Your task to perform on an android device: Show me the alarms in the clock app Image 0: 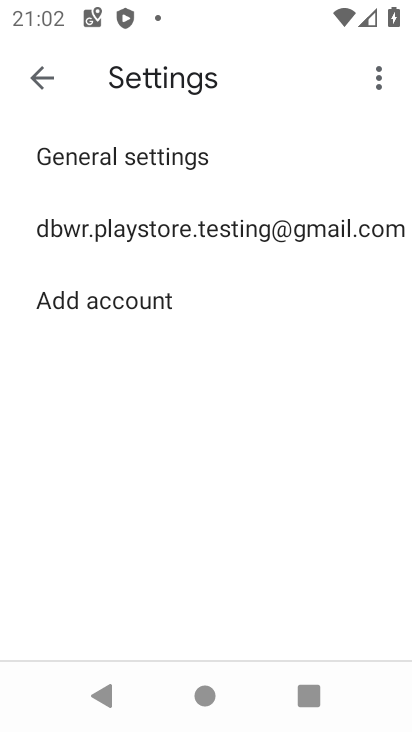
Step 0: press home button
Your task to perform on an android device: Show me the alarms in the clock app Image 1: 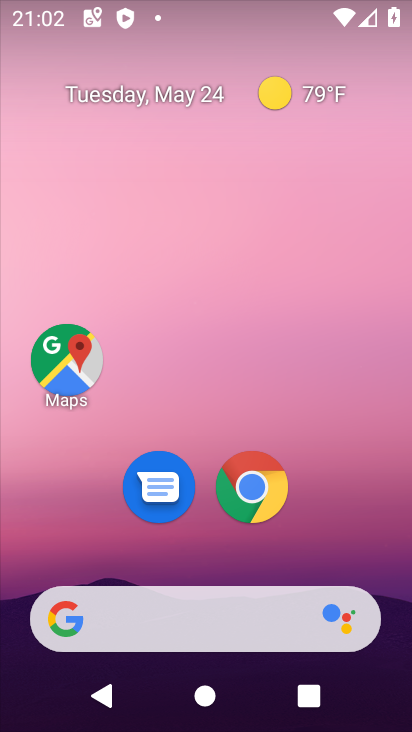
Step 1: drag from (358, 542) to (355, 0)
Your task to perform on an android device: Show me the alarms in the clock app Image 2: 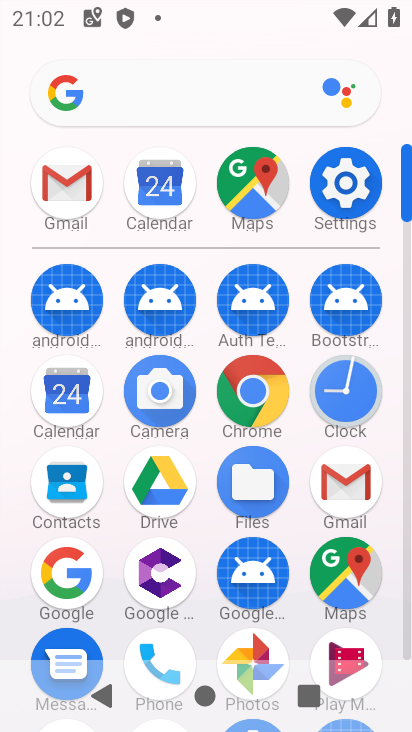
Step 2: click (348, 364)
Your task to perform on an android device: Show me the alarms in the clock app Image 3: 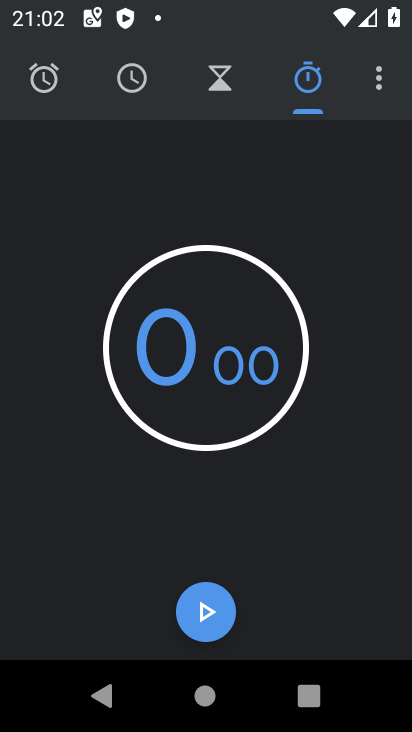
Step 3: click (27, 82)
Your task to perform on an android device: Show me the alarms in the clock app Image 4: 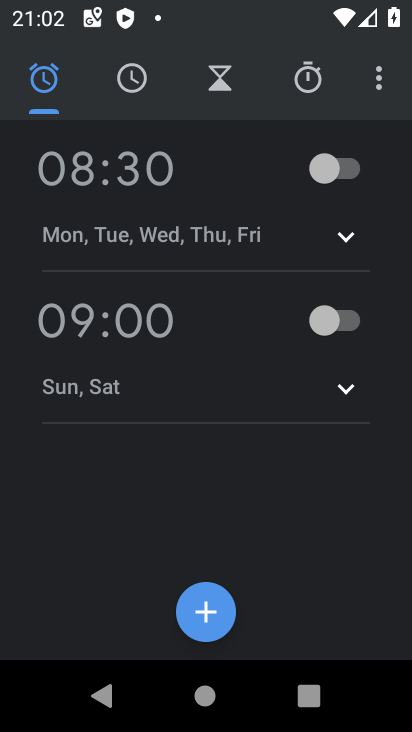
Step 4: task complete